Your task to perform on an android device: turn off picture-in-picture Image 0: 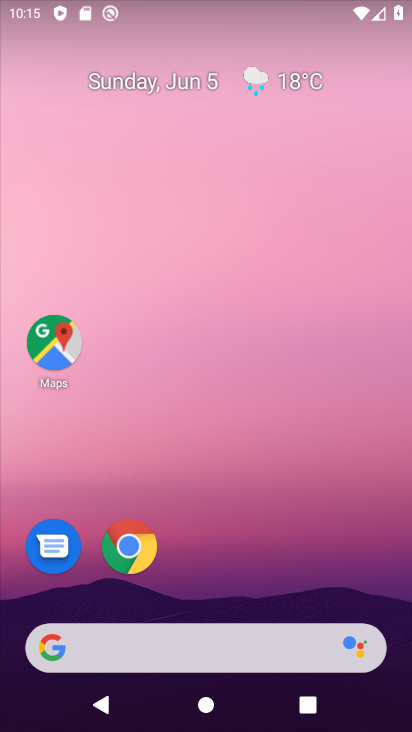
Step 0: click (127, 567)
Your task to perform on an android device: turn off picture-in-picture Image 1: 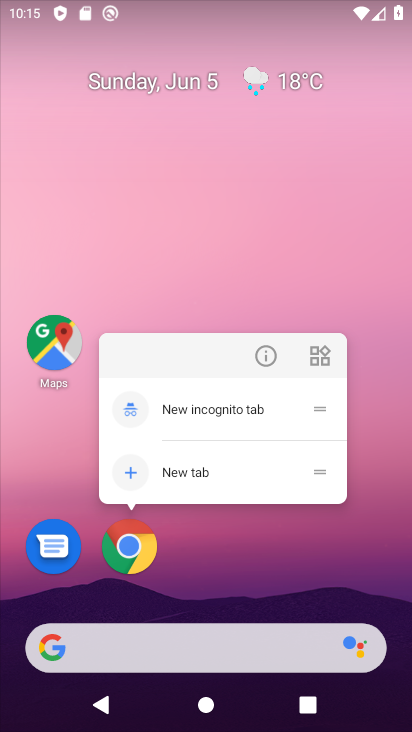
Step 1: click (269, 370)
Your task to perform on an android device: turn off picture-in-picture Image 2: 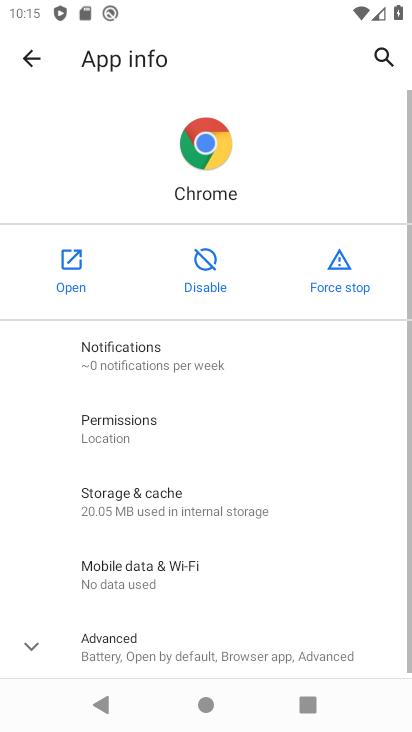
Step 2: drag from (258, 586) to (262, 285)
Your task to perform on an android device: turn off picture-in-picture Image 3: 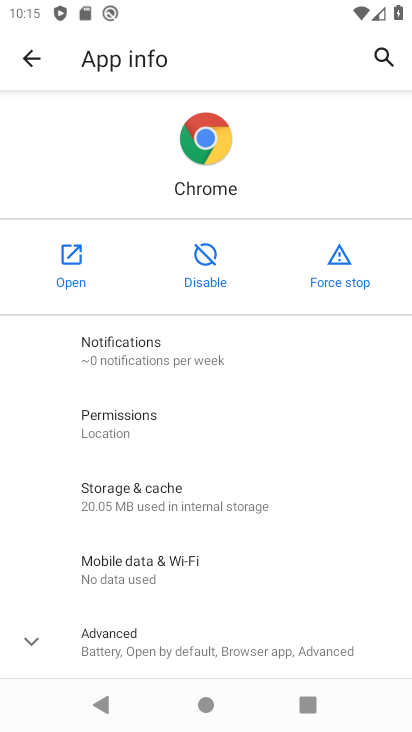
Step 3: click (166, 649)
Your task to perform on an android device: turn off picture-in-picture Image 4: 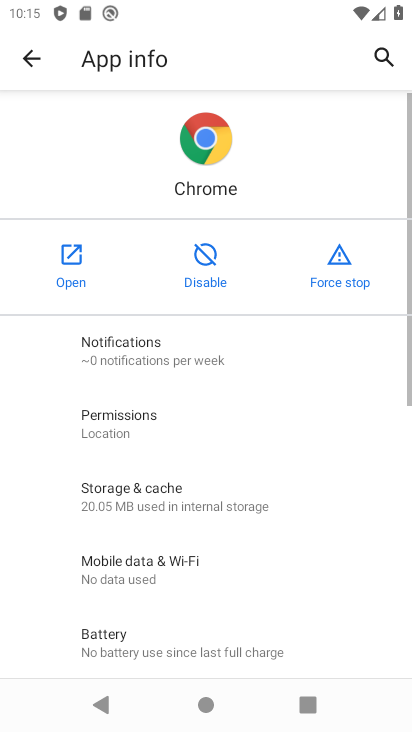
Step 4: drag from (177, 625) to (197, 302)
Your task to perform on an android device: turn off picture-in-picture Image 5: 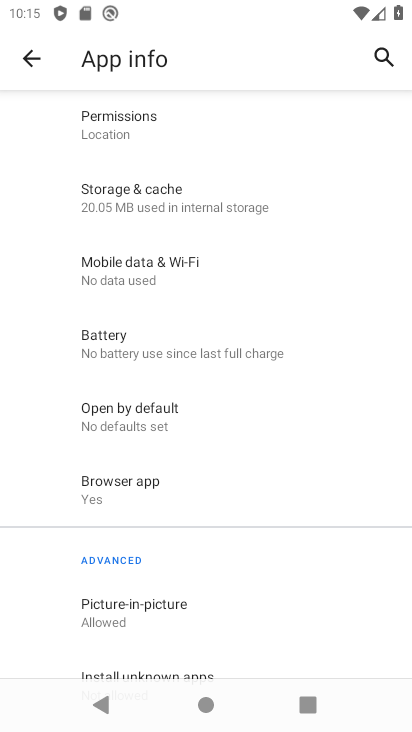
Step 5: click (185, 617)
Your task to perform on an android device: turn off picture-in-picture Image 6: 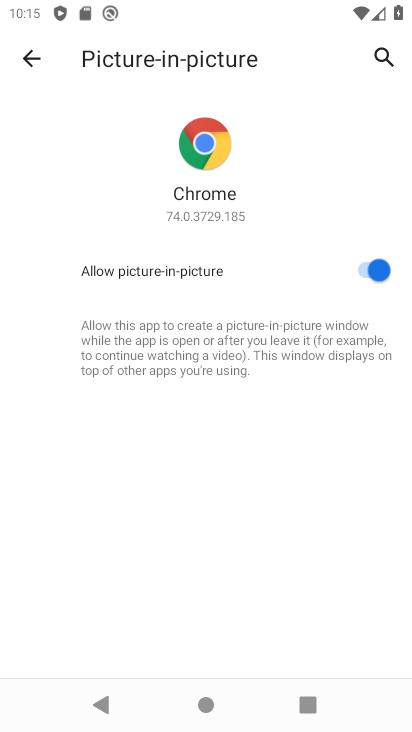
Step 6: click (375, 276)
Your task to perform on an android device: turn off picture-in-picture Image 7: 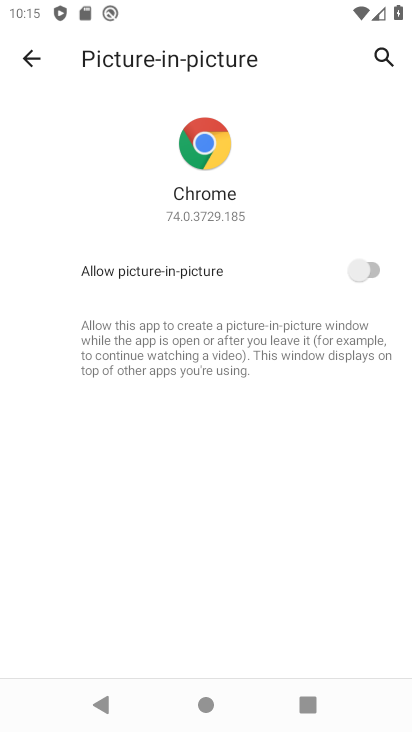
Step 7: task complete